Your task to perform on an android device: open app "Gmail" (install if not already installed), go to login, and select forgot password Image 0: 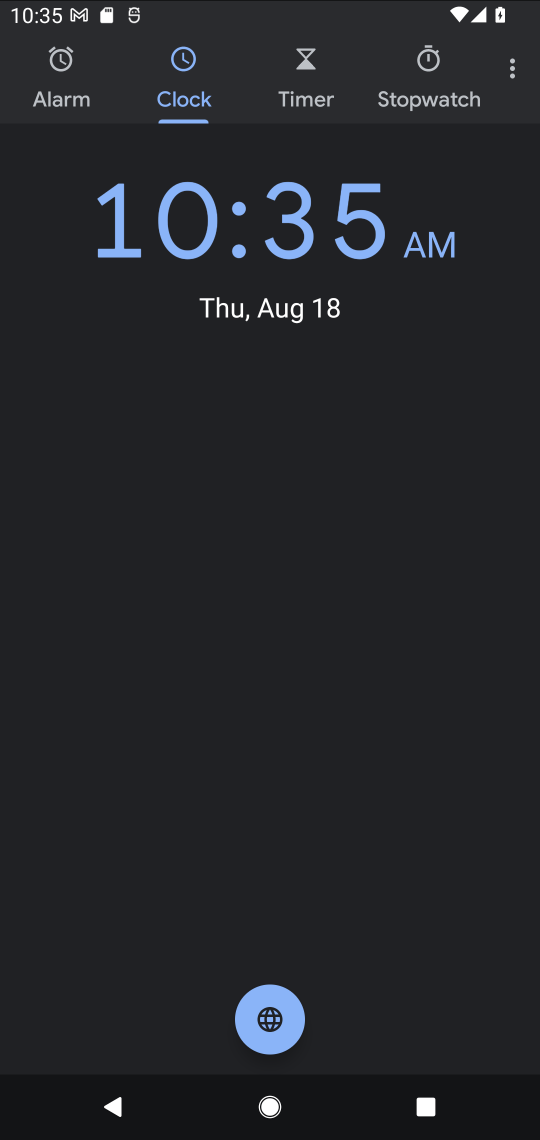
Step 0: press home button
Your task to perform on an android device: open app "Gmail" (install if not already installed), go to login, and select forgot password Image 1: 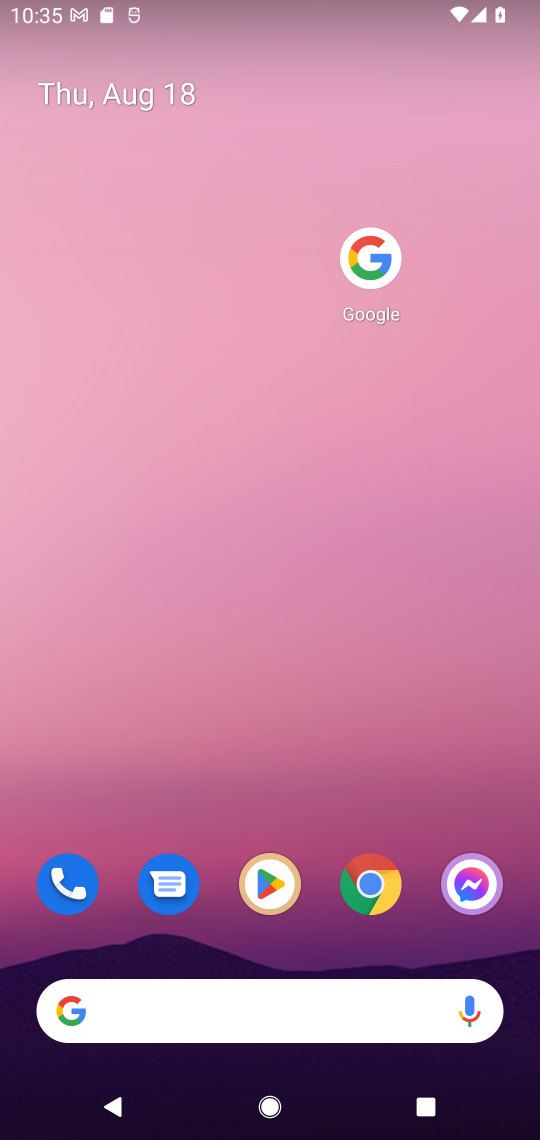
Step 1: drag from (241, 981) to (299, 142)
Your task to perform on an android device: open app "Gmail" (install if not already installed), go to login, and select forgot password Image 2: 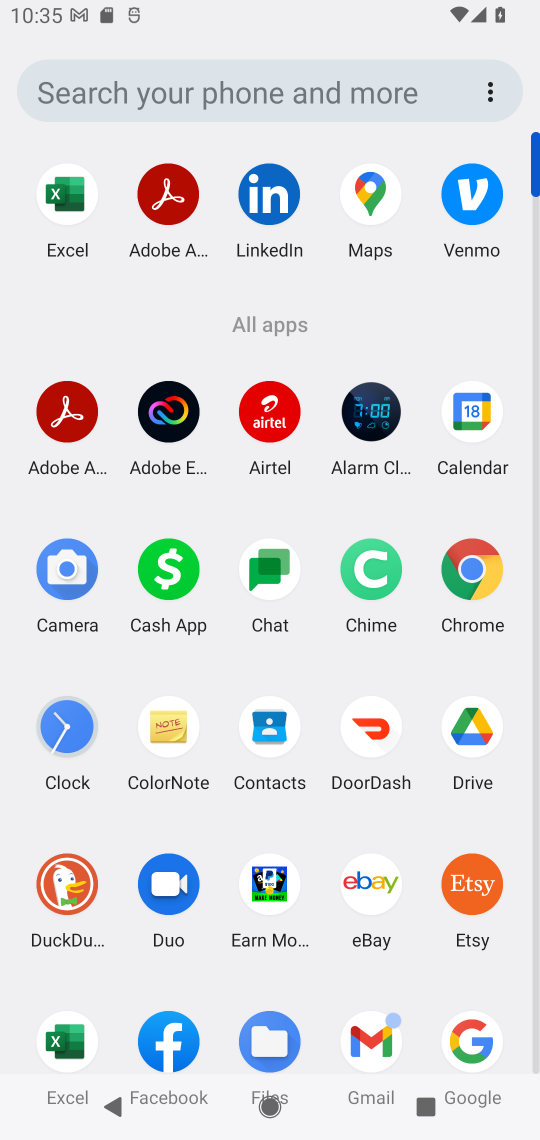
Step 2: click (341, 1045)
Your task to perform on an android device: open app "Gmail" (install if not already installed), go to login, and select forgot password Image 3: 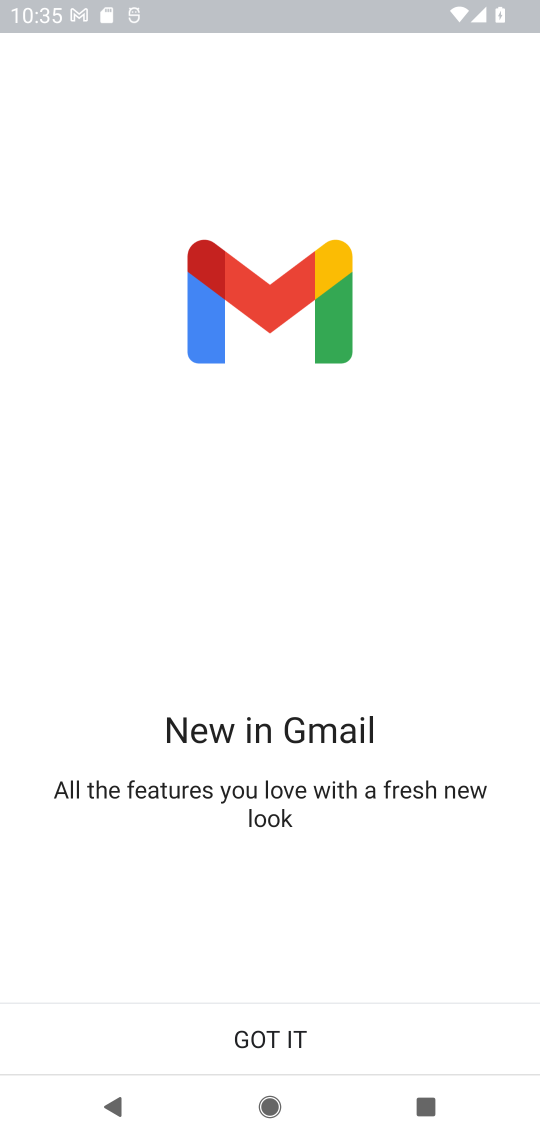
Step 3: task complete